Your task to perform on an android device: Open Wikipedia Image 0: 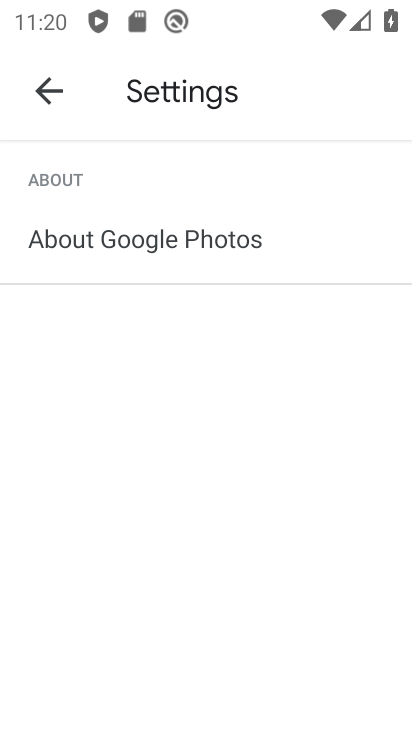
Step 0: press back button
Your task to perform on an android device: Open Wikipedia Image 1: 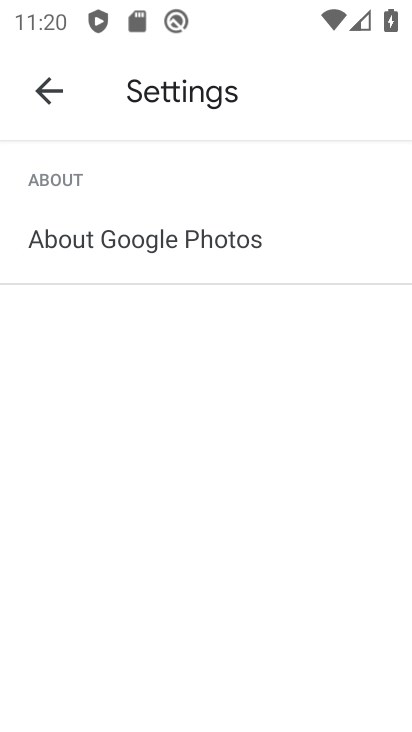
Step 1: press back button
Your task to perform on an android device: Open Wikipedia Image 2: 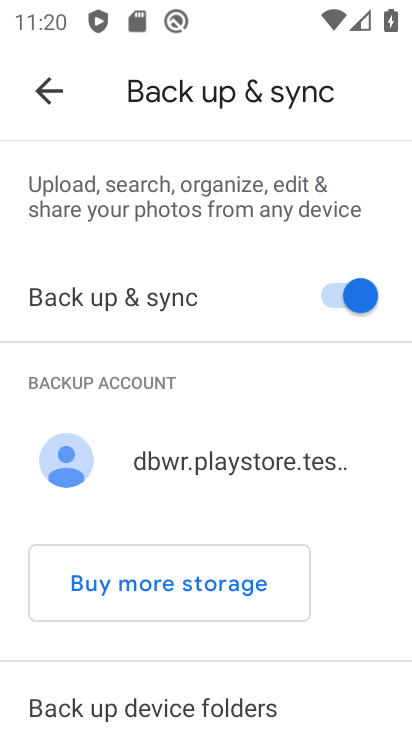
Step 2: press back button
Your task to perform on an android device: Open Wikipedia Image 3: 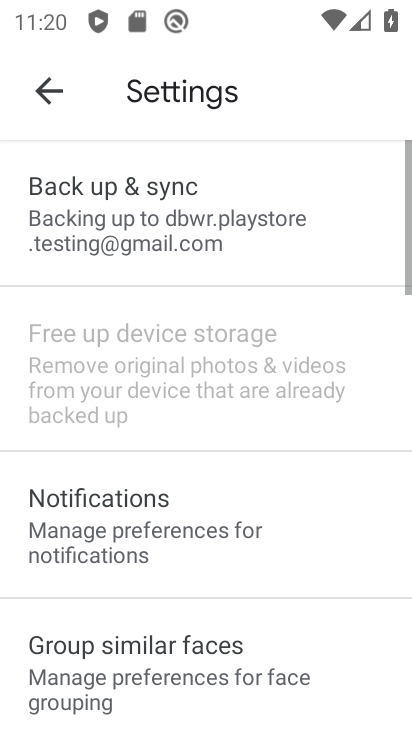
Step 3: press back button
Your task to perform on an android device: Open Wikipedia Image 4: 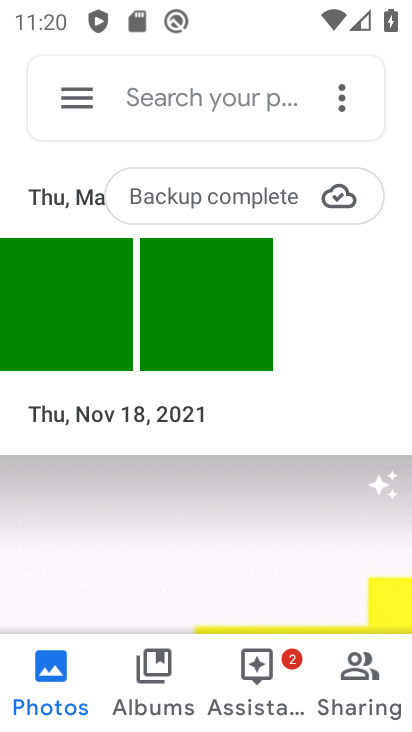
Step 4: press home button
Your task to perform on an android device: Open Wikipedia Image 5: 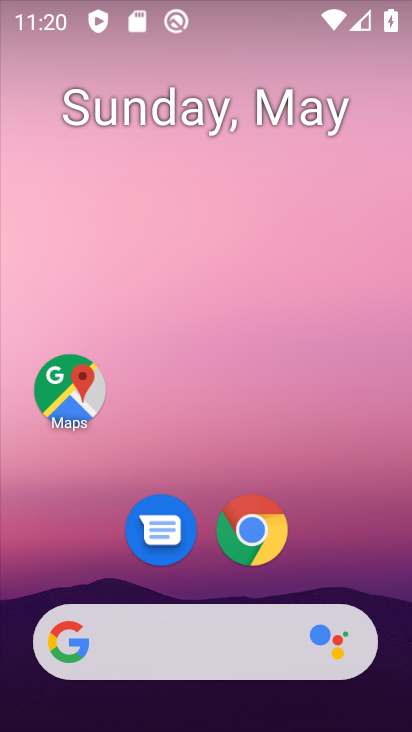
Step 5: click (258, 533)
Your task to perform on an android device: Open Wikipedia Image 6: 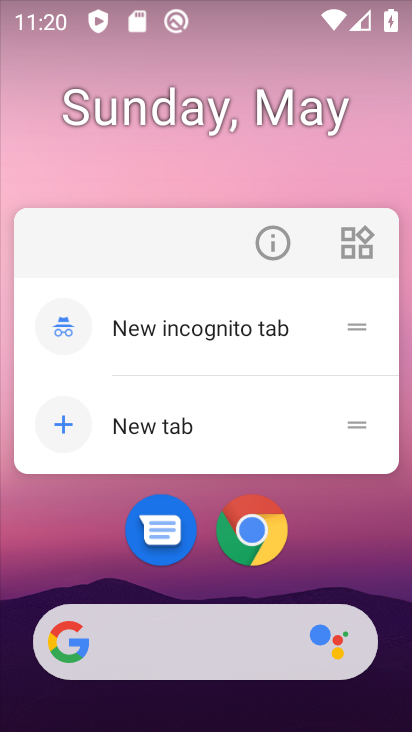
Step 6: click (250, 520)
Your task to perform on an android device: Open Wikipedia Image 7: 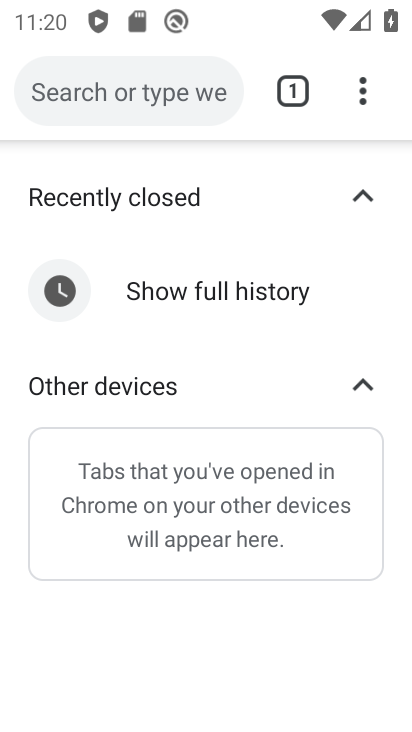
Step 7: click (287, 97)
Your task to perform on an android device: Open Wikipedia Image 8: 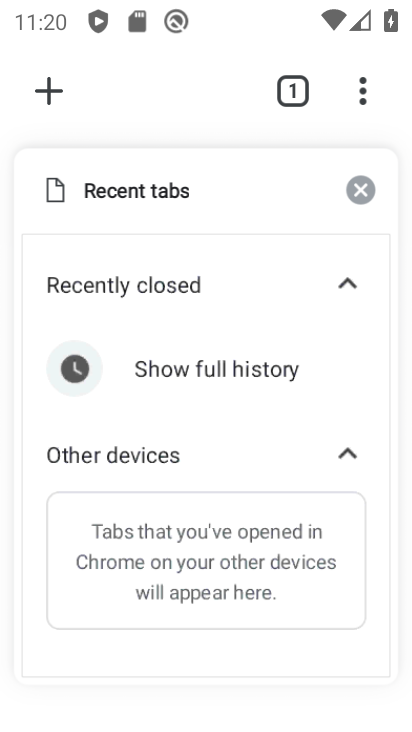
Step 8: click (48, 84)
Your task to perform on an android device: Open Wikipedia Image 9: 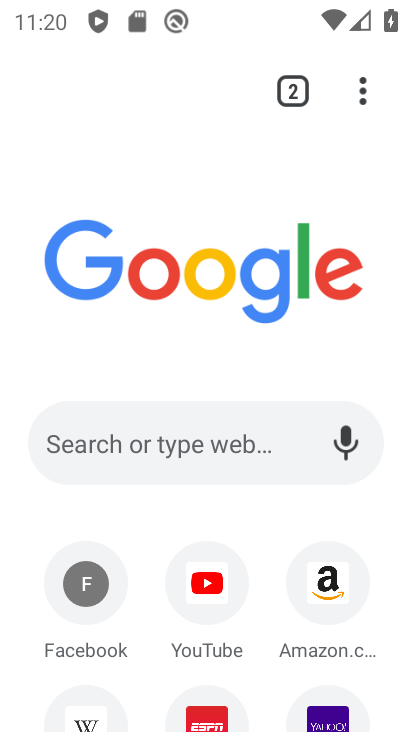
Step 9: click (102, 713)
Your task to perform on an android device: Open Wikipedia Image 10: 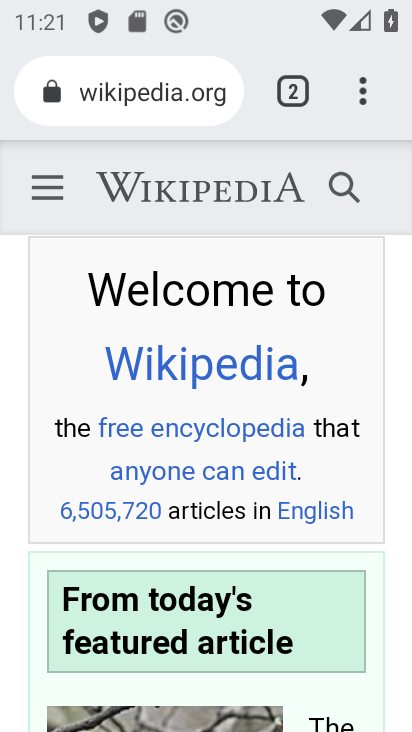
Step 10: task complete